Your task to perform on an android device: change the clock style Image 0: 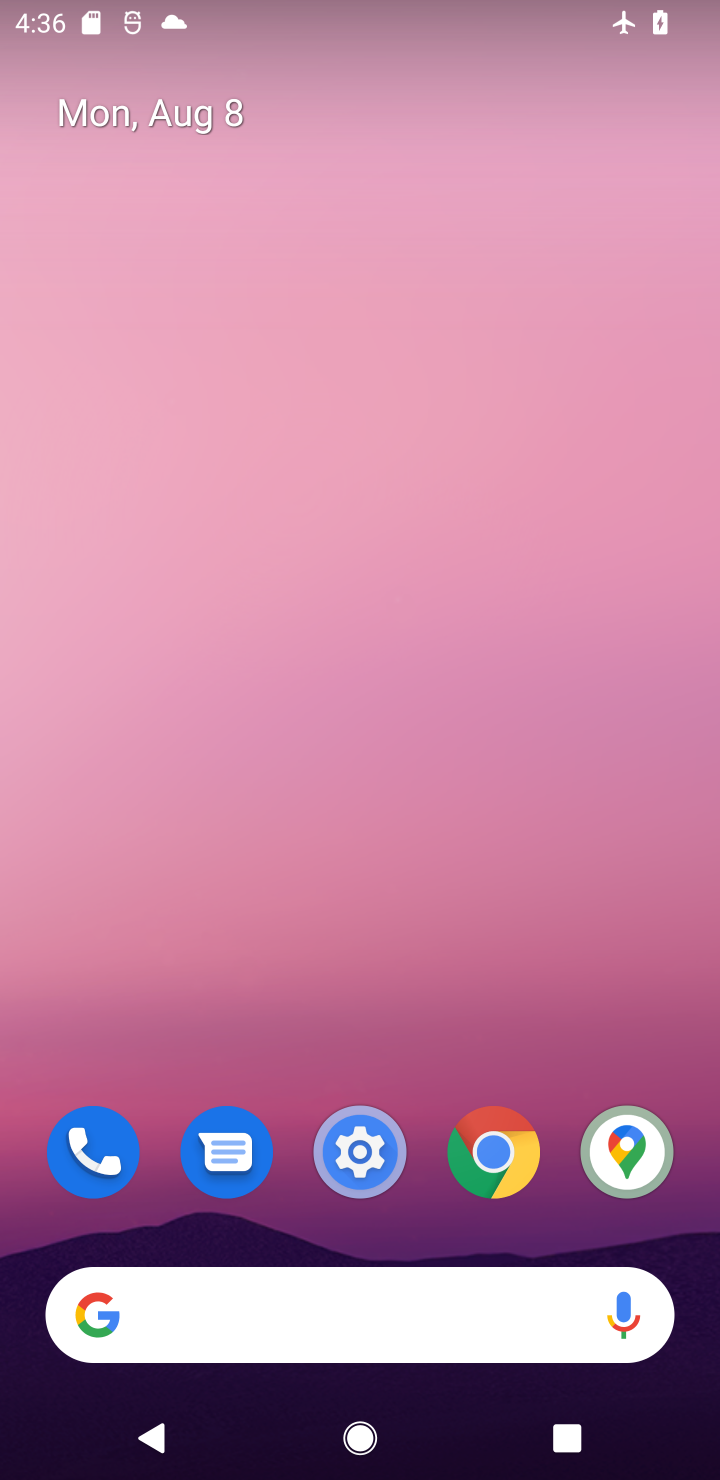
Step 0: drag from (335, 551) to (379, 9)
Your task to perform on an android device: change the clock style Image 1: 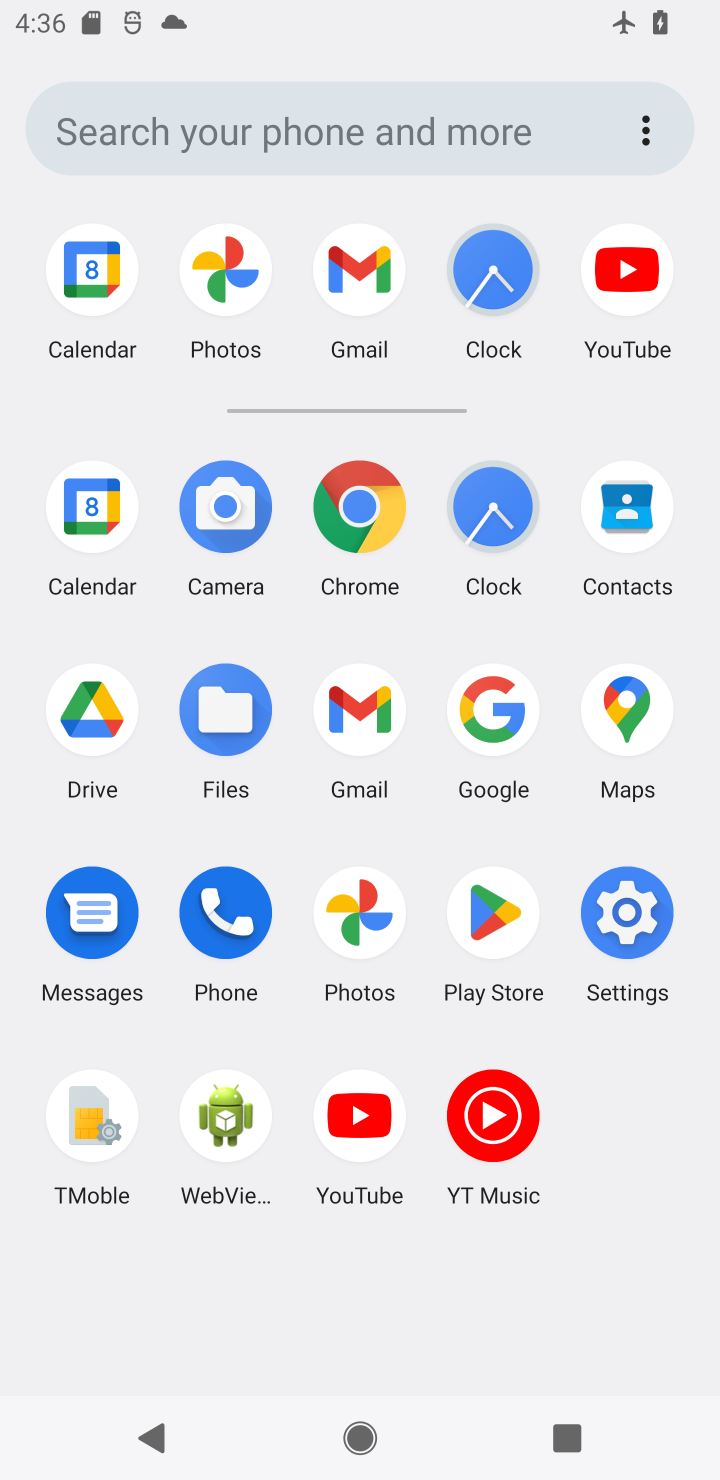
Step 1: click (500, 276)
Your task to perform on an android device: change the clock style Image 2: 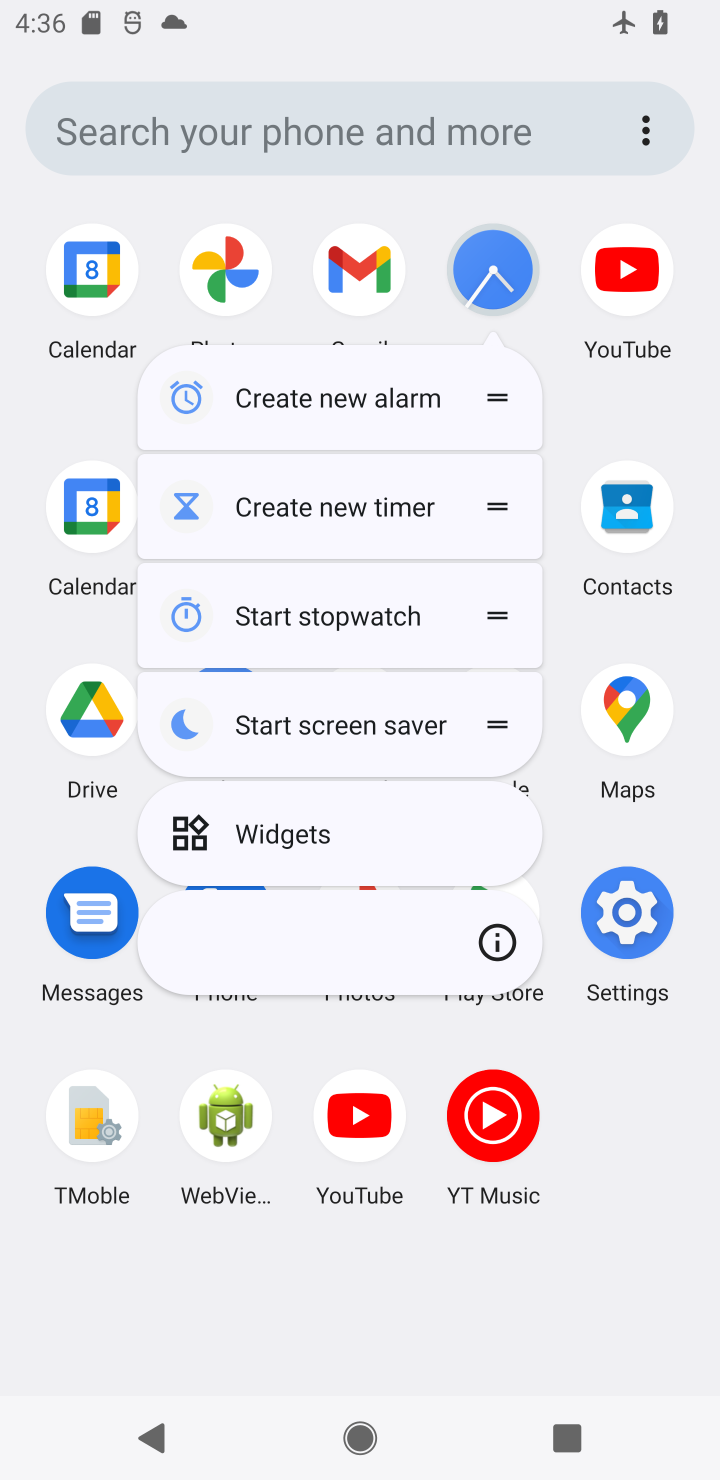
Step 2: click (501, 274)
Your task to perform on an android device: change the clock style Image 3: 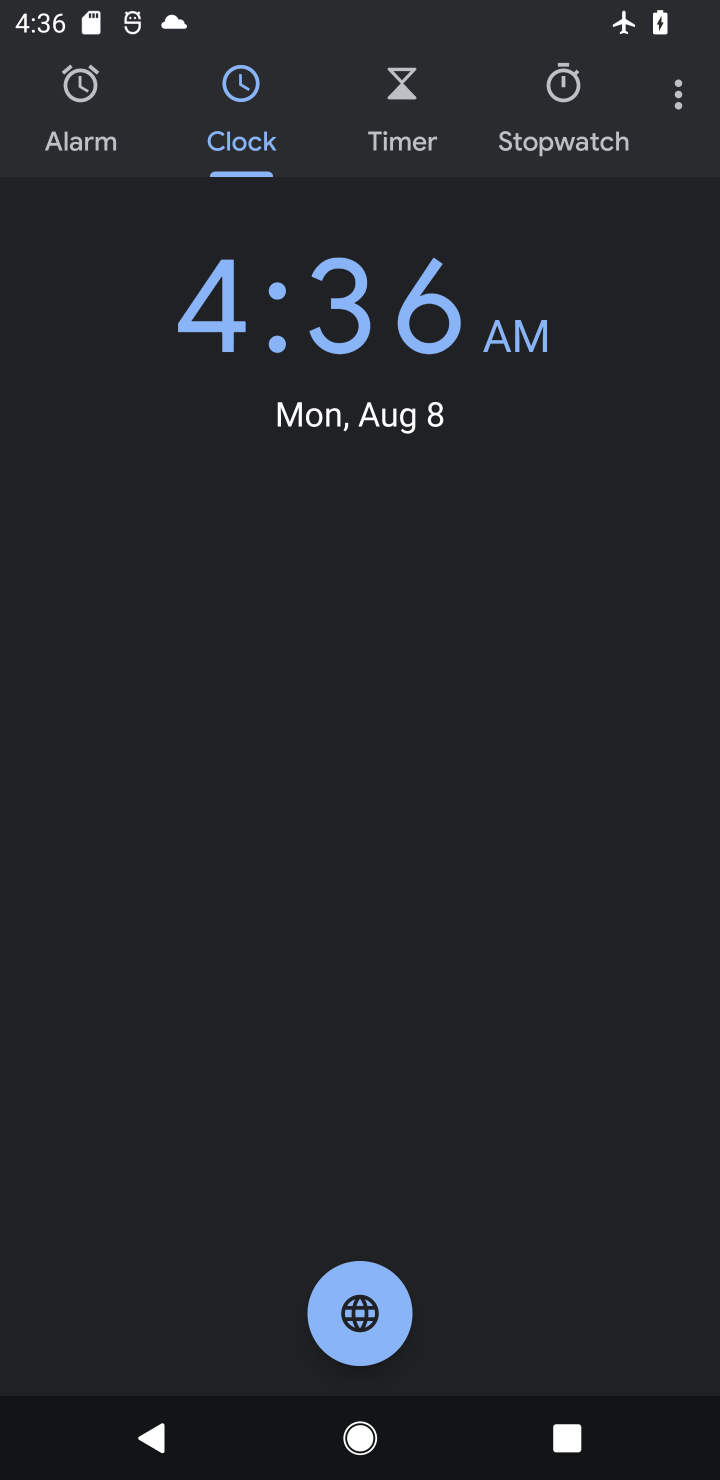
Step 3: click (676, 79)
Your task to perform on an android device: change the clock style Image 4: 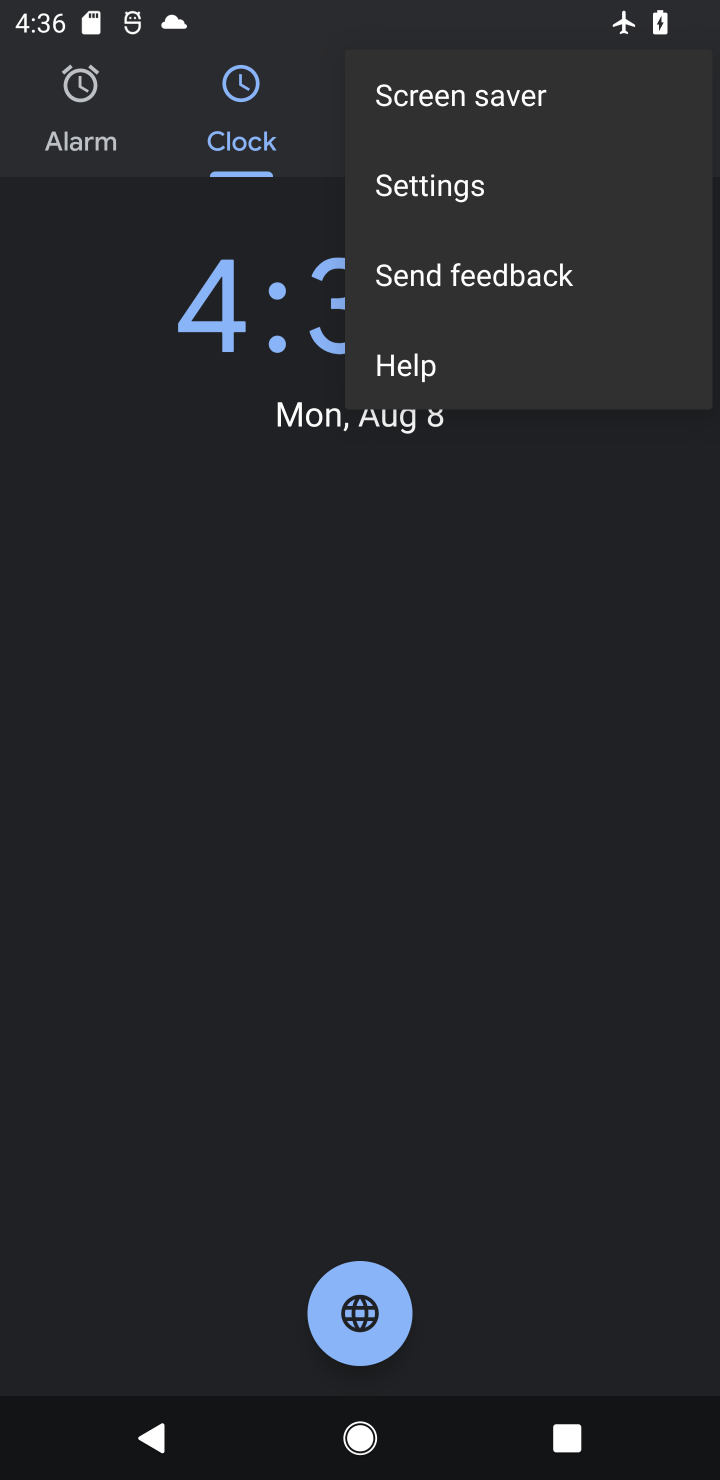
Step 4: click (524, 183)
Your task to perform on an android device: change the clock style Image 5: 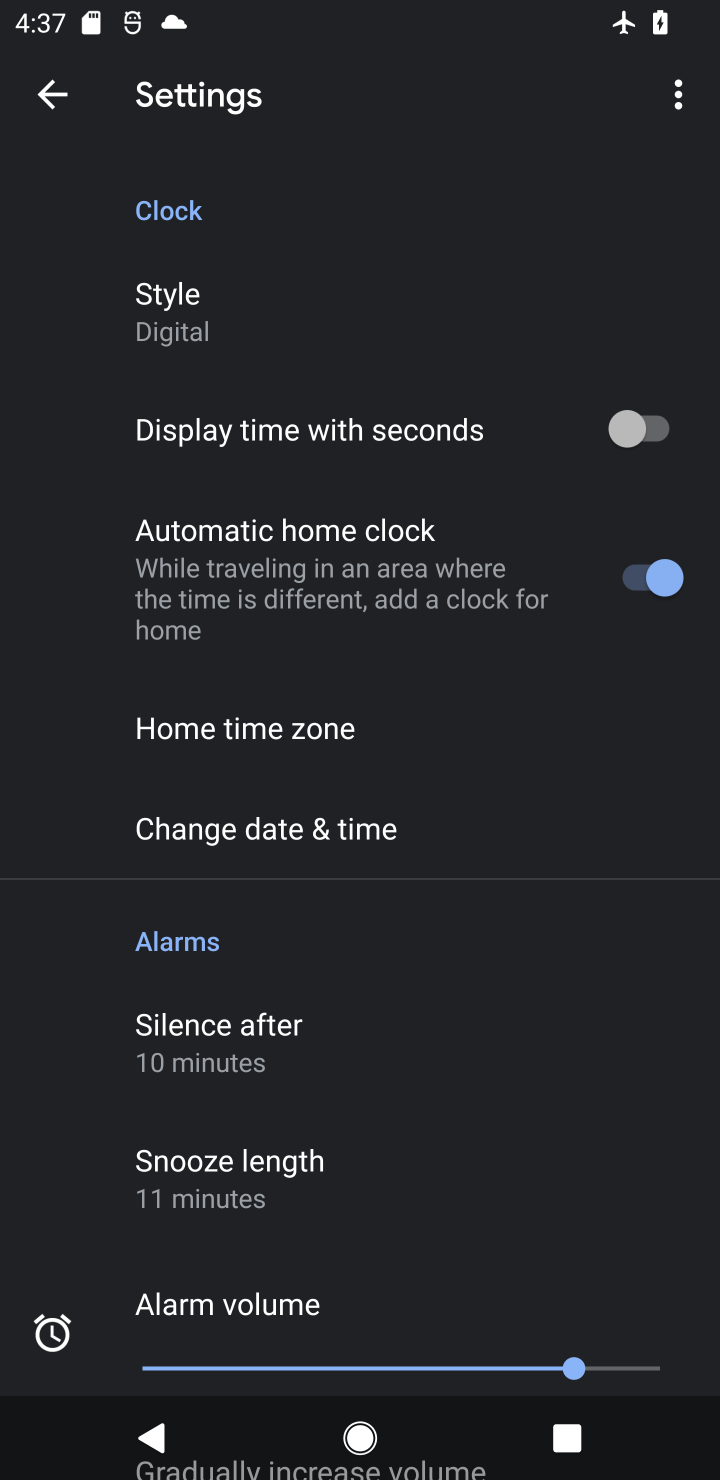
Step 5: click (257, 307)
Your task to perform on an android device: change the clock style Image 6: 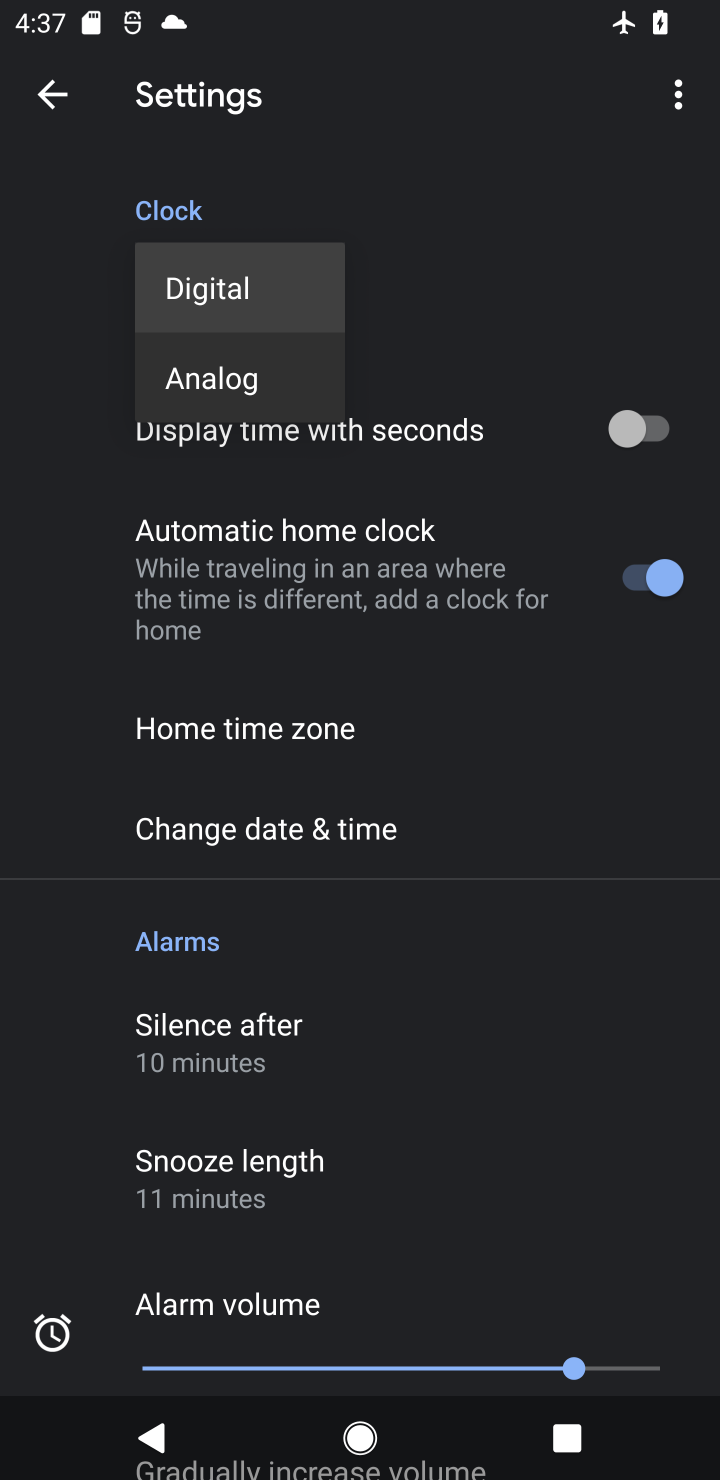
Step 6: click (555, 171)
Your task to perform on an android device: change the clock style Image 7: 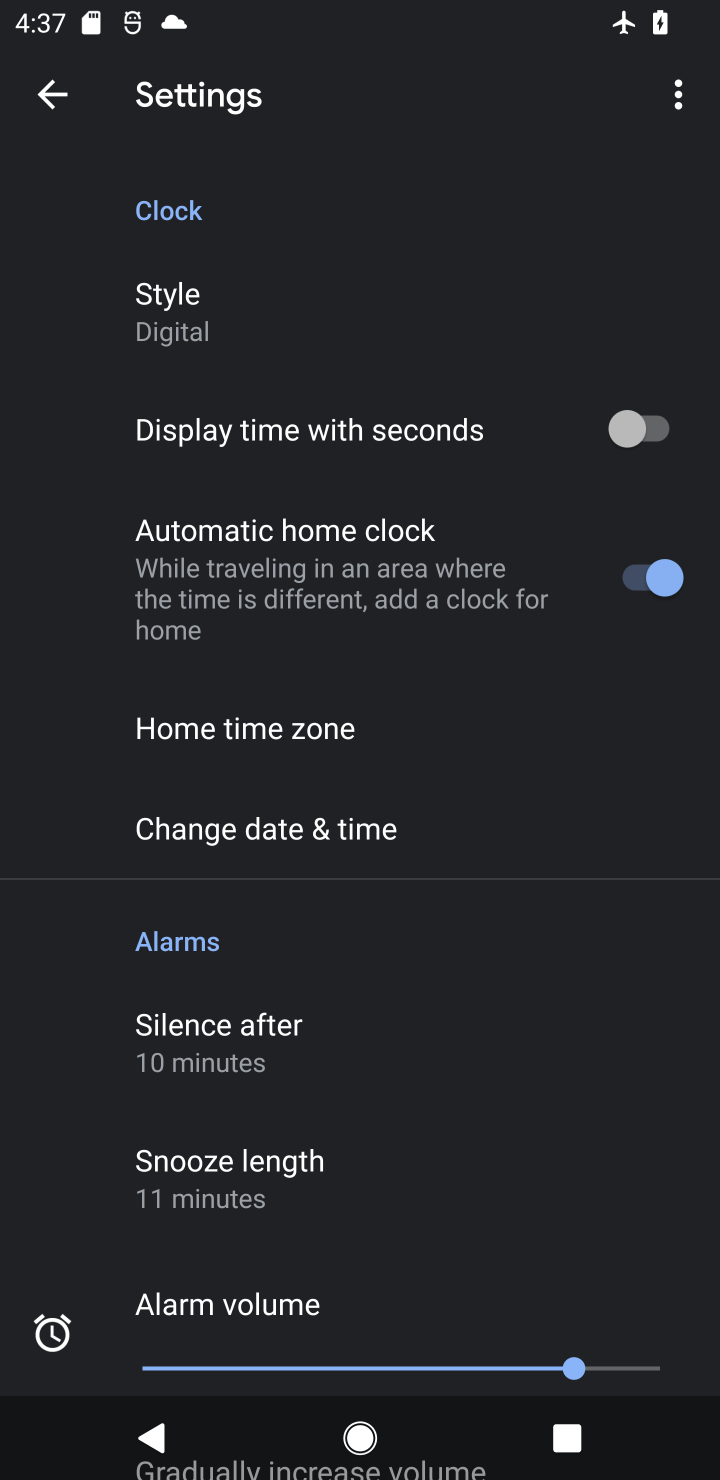
Step 7: click (172, 289)
Your task to perform on an android device: change the clock style Image 8: 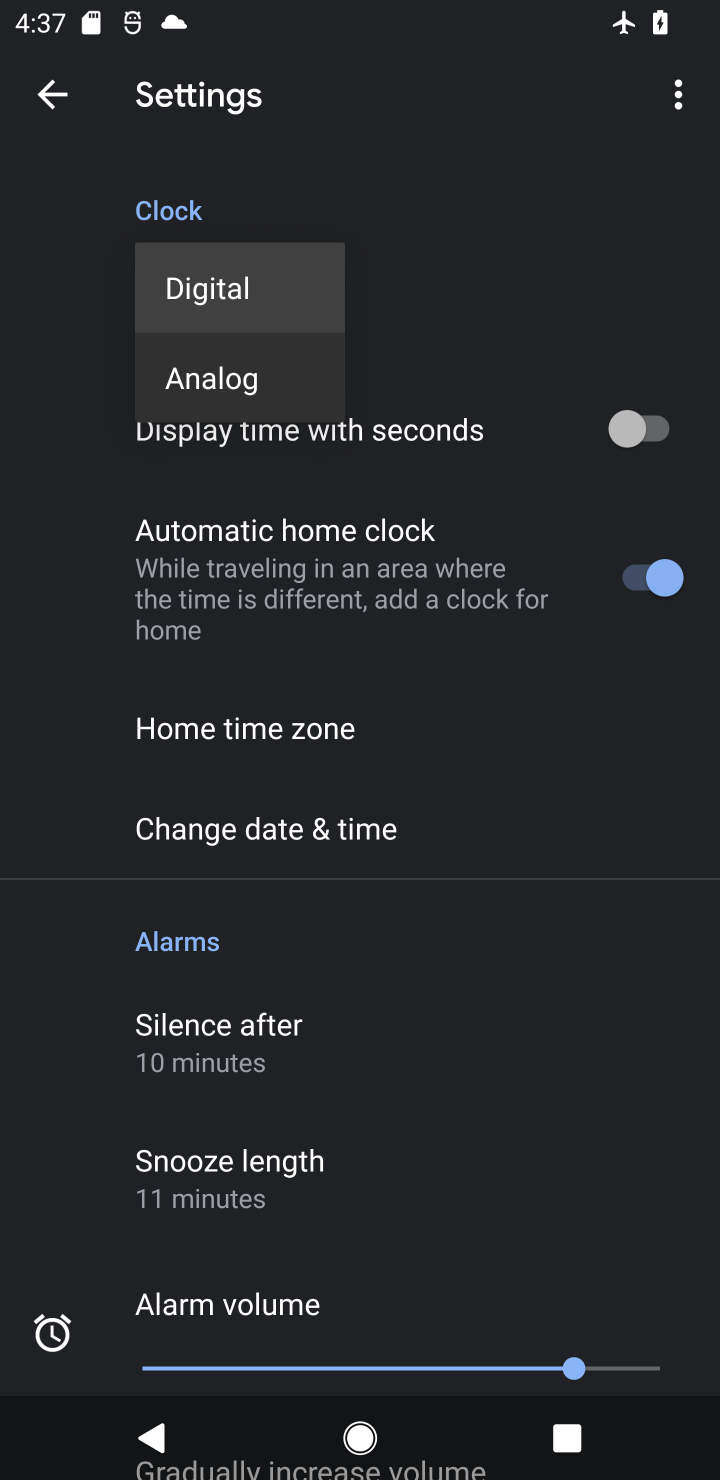
Step 8: click (241, 406)
Your task to perform on an android device: change the clock style Image 9: 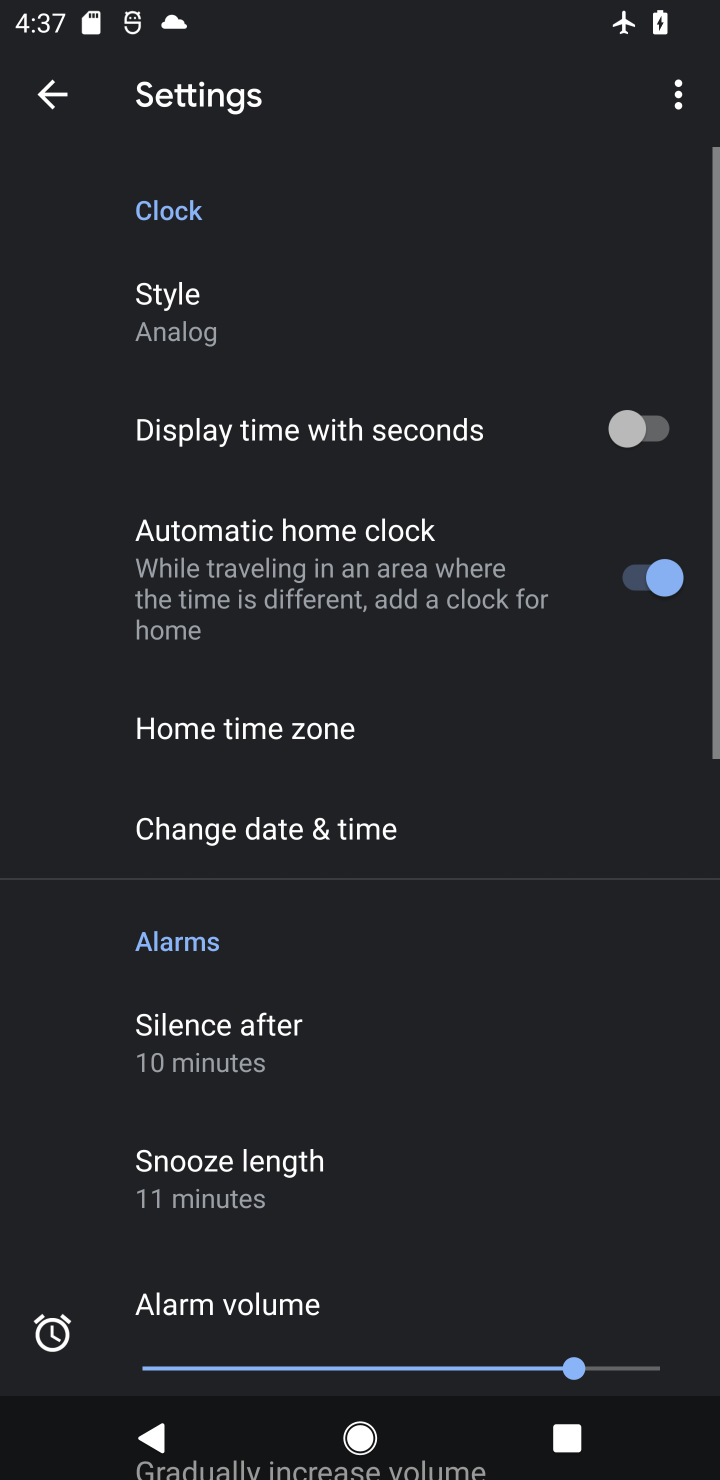
Step 9: task complete